Your task to perform on an android device: open a new tab in the chrome app Image 0: 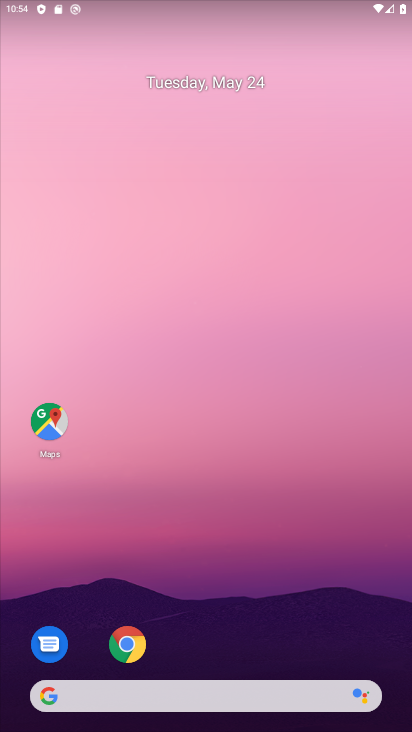
Step 0: click (124, 641)
Your task to perform on an android device: open a new tab in the chrome app Image 1: 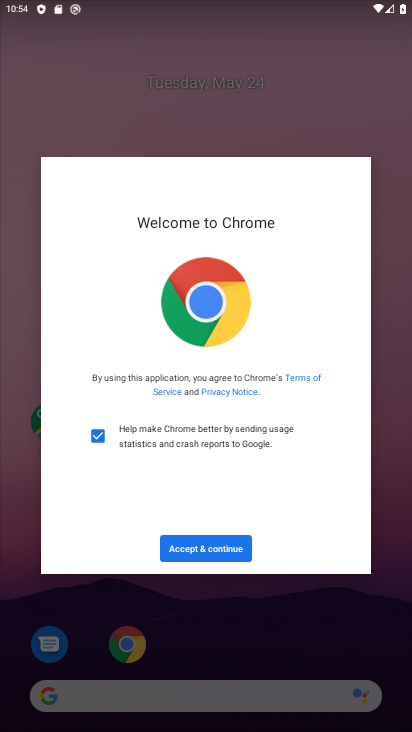
Step 1: click (190, 548)
Your task to perform on an android device: open a new tab in the chrome app Image 2: 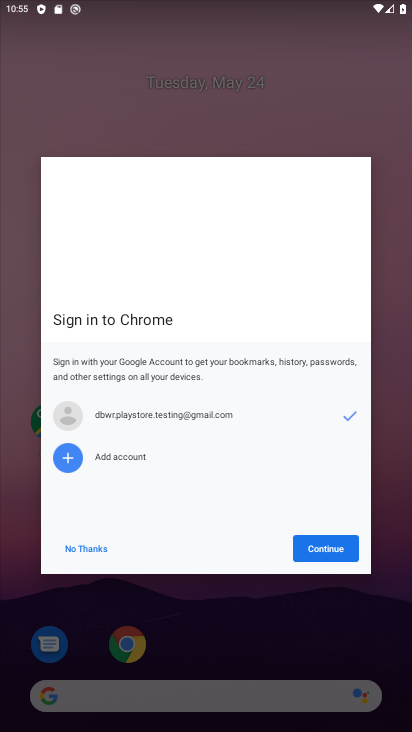
Step 2: click (329, 546)
Your task to perform on an android device: open a new tab in the chrome app Image 3: 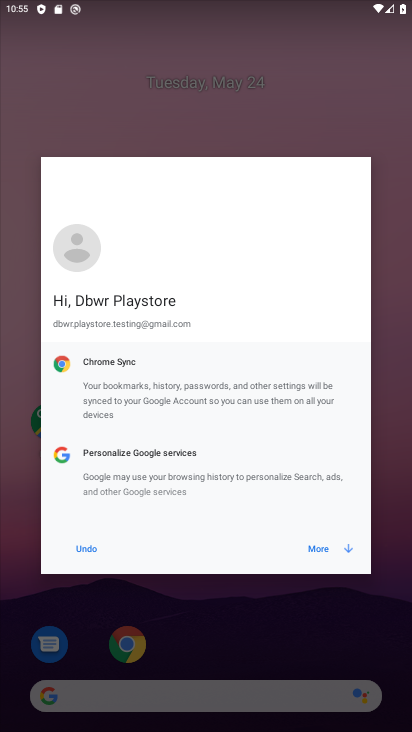
Step 3: click (329, 546)
Your task to perform on an android device: open a new tab in the chrome app Image 4: 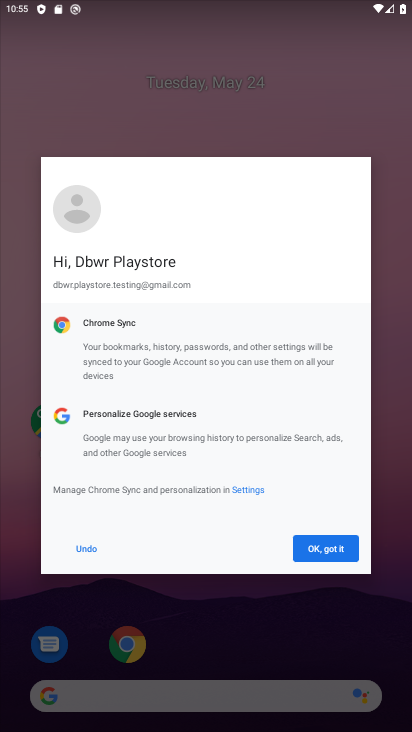
Step 4: click (329, 546)
Your task to perform on an android device: open a new tab in the chrome app Image 5: 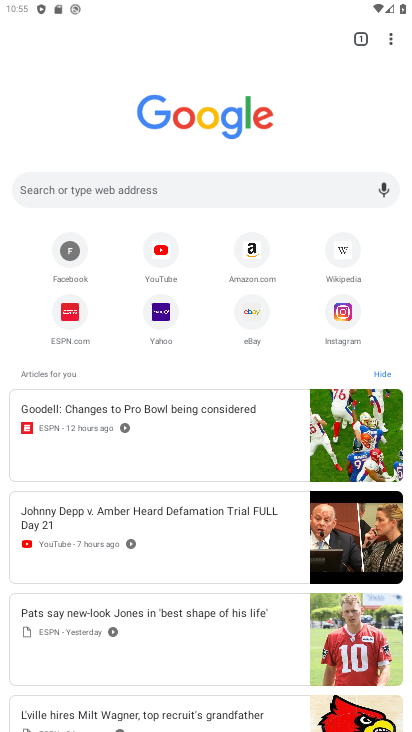
Step 5: click (393, 35)
Your task to perform on an android device: open a new tab in the chrome app Image 6: 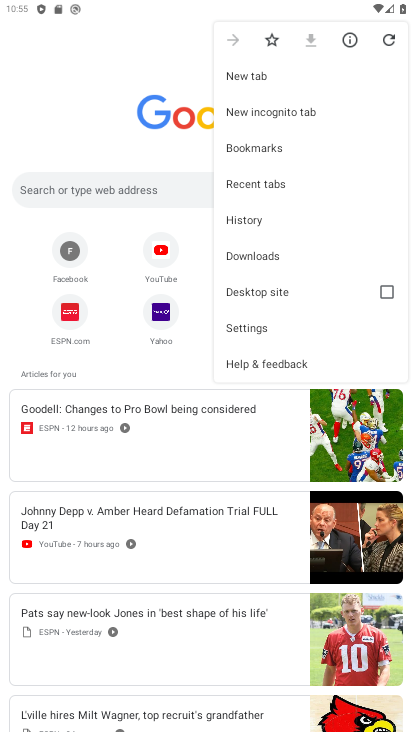
Step 6: click (257, 78)
Your task to perform on an android device: open a new tab in the chrome app Image 7: 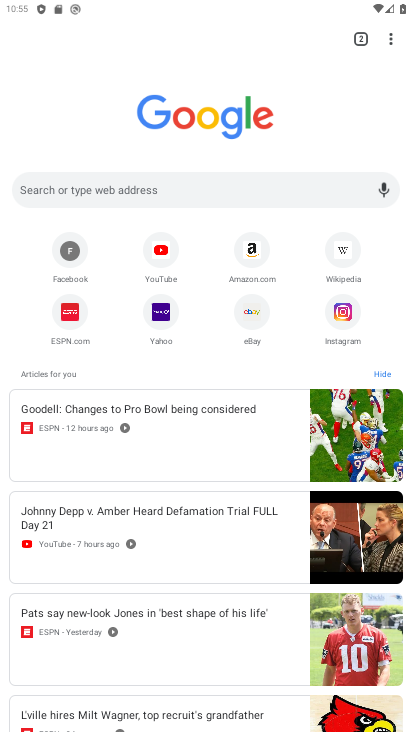
Step 7: task complete